Your task to perform on an android device: turn notification dots off Image 0: 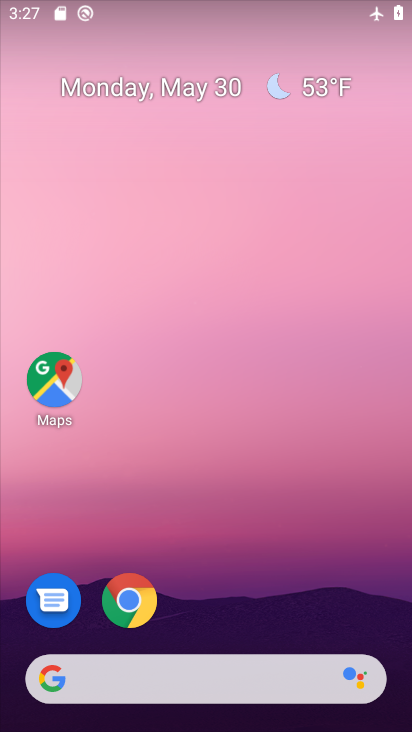
Step 0: click (412, 511)
Your task to perform on an android device: turn notification dots off Image 1: 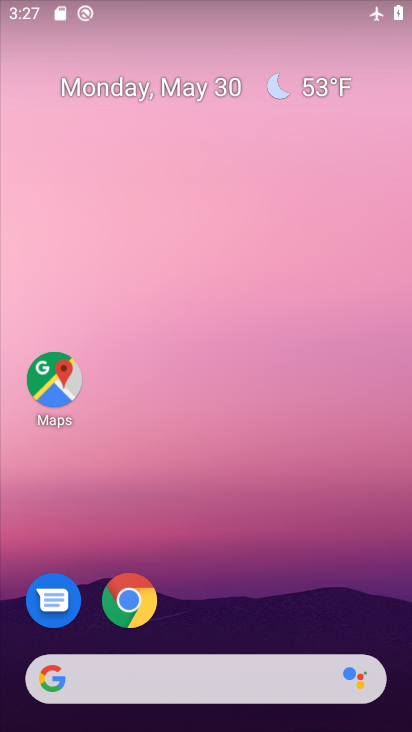
Step 1: drag from (345, 513) to (408, 146)
Your task to perform on an android device: turn notification dots off Image 2: 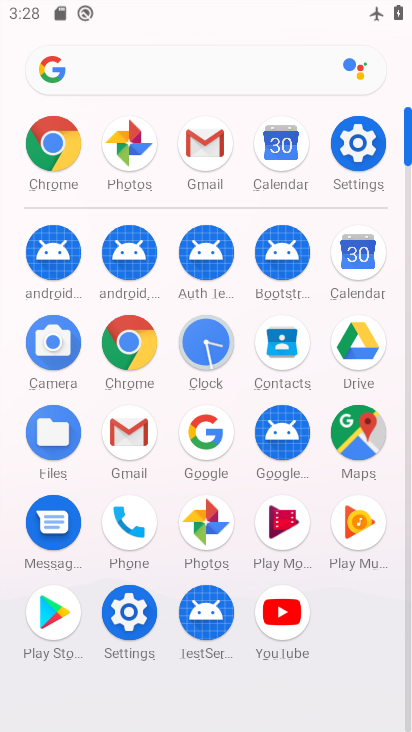
Step 2: click (360, 143)
Your task to perform on an android device: turn notification dots off Image 3: 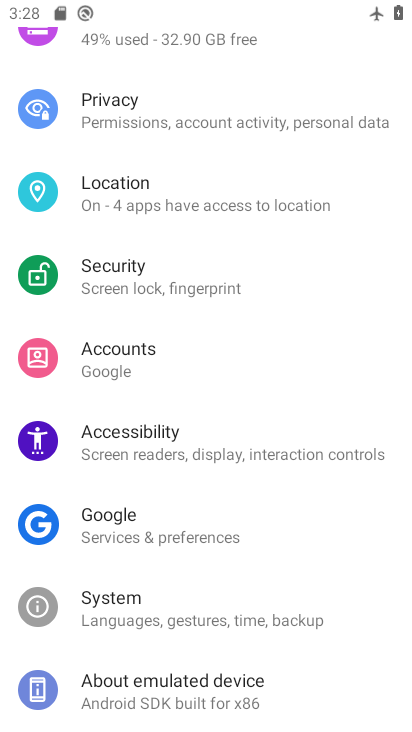
Step 3: drag from (269, 541) to (396, 192)
Your task to perform on an android device: turn notification dots off Image 4: 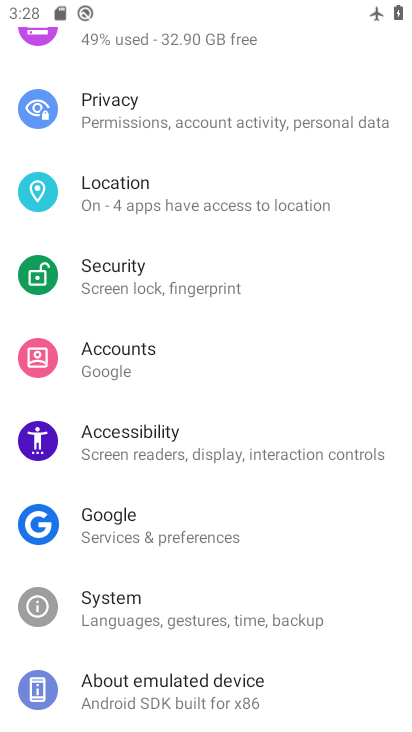
Step 4: drag from (298, 242) to (196, 580)
Your task to perform on an android device: turn notification dots off Image 5: 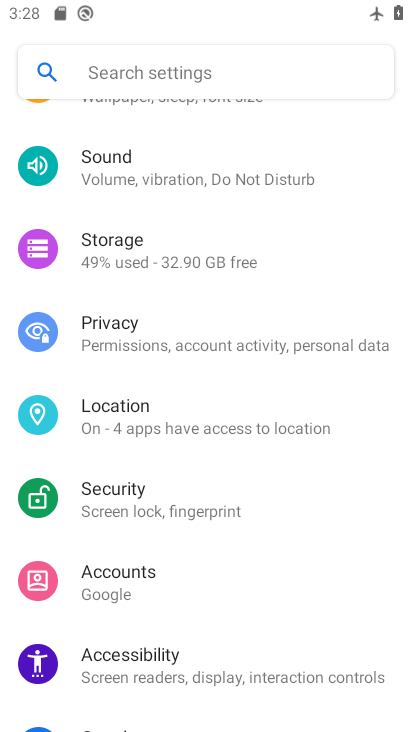
Step 5: drag from (219, 355) to (154, 618)
Your task to perform on an android device: turn notification dots off Image 6: 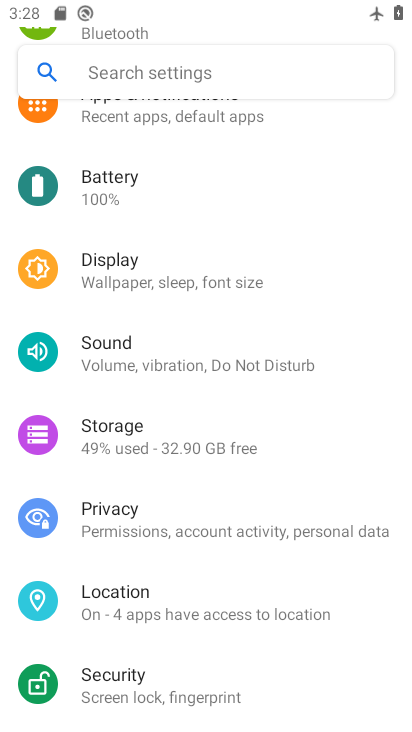
Step 6: drag from (229, 249) to (102, 610)
Your task to perform on an android device: turn notification dots off Image 7: 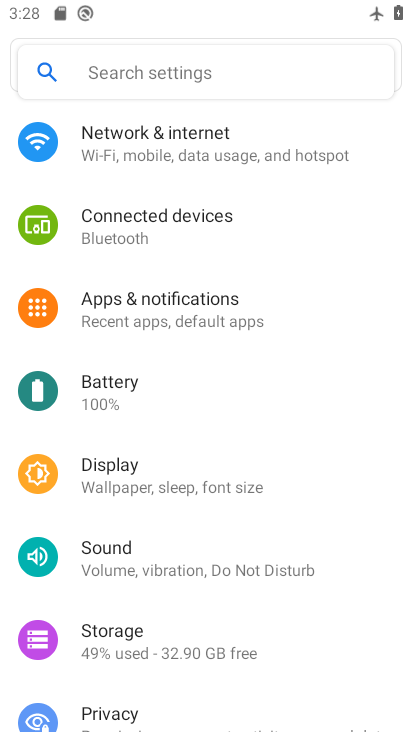
Step 7: drag from (168, 243) to (85, 578)
Your task to perform on an android device: turn notification dots off Image 8: 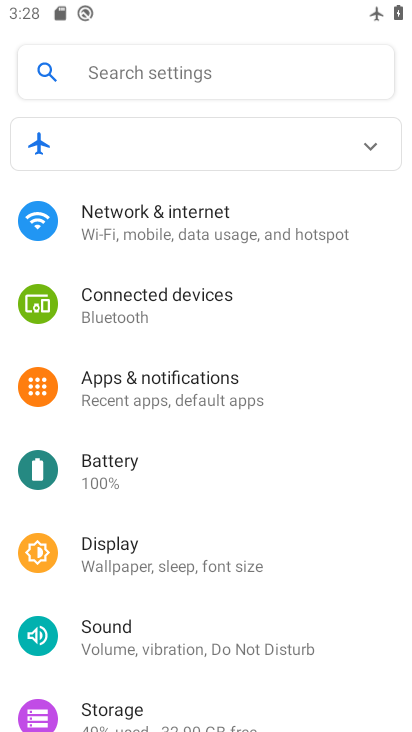
Step 8: click (186, 382)
Your task to perform on an android device: turn notification dots off Image 9: 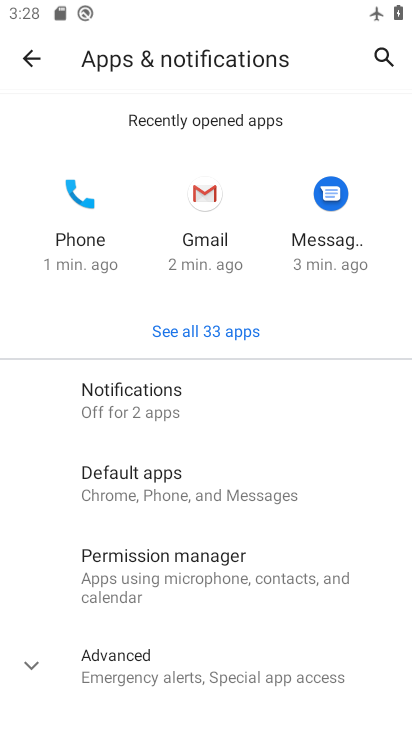
Step 9: click (153, 393)
Your task to perform on an android device: turn notification dots off Image 10: 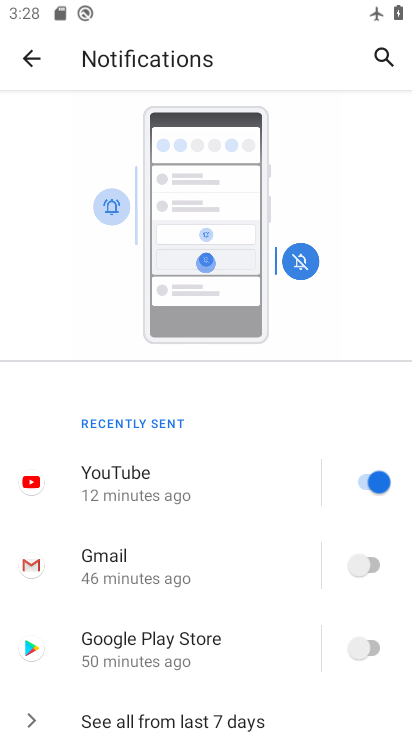
Step 10: drag from (164, 558) to (261, 258)
Your task to perform on an android device: turn notification dots off Image 11: 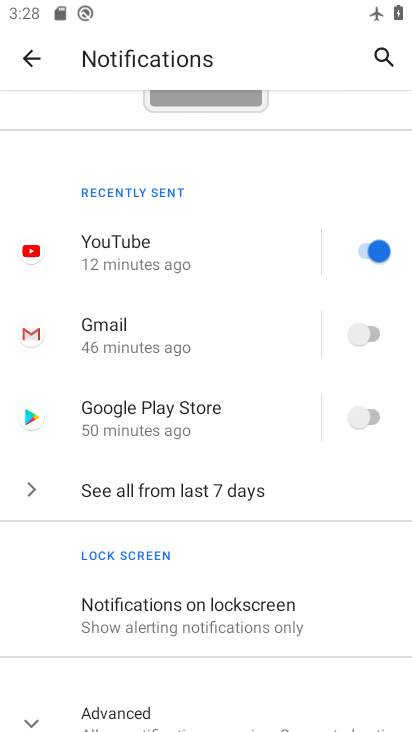
Step 11: drag from (164, 593) to (259, 259)
Your task to perform on an android device: turn notification dots off Image 12: 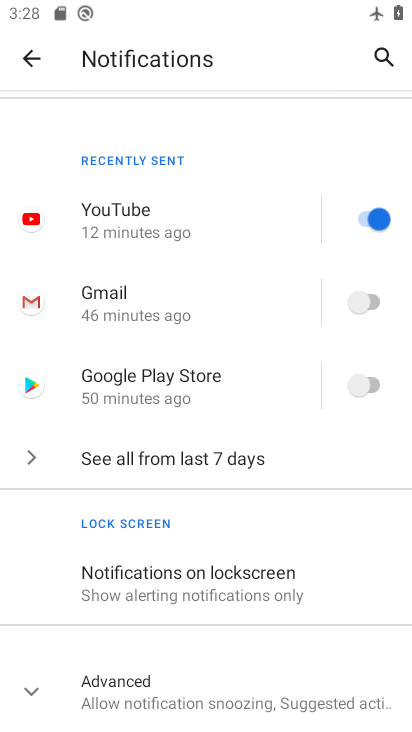
Step 12: click (126, 686)
Your task to perform on an android device: turn notification dots off Image 13: 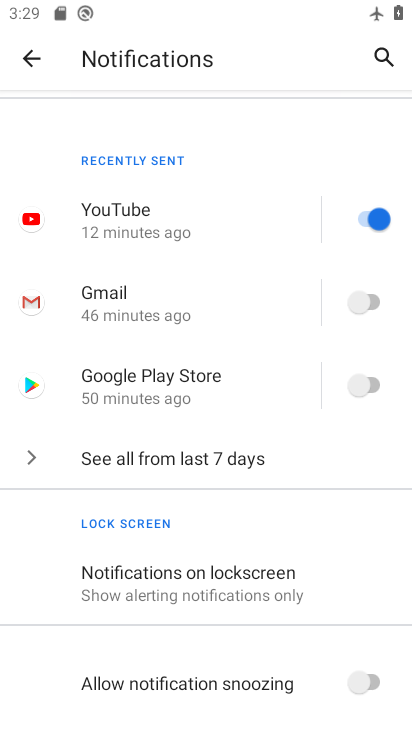
Step 13: drag from (165, 627) to (286, 317)
Your task to perform on an android device: turn notification dots off Image 14: 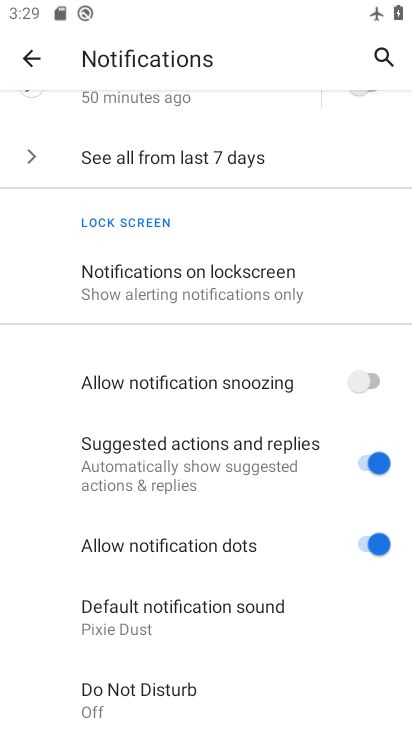
Step 14: drag from (140, 598) to (277, 288)
Your task to perform on an android device: turn notification dots off Image 15: 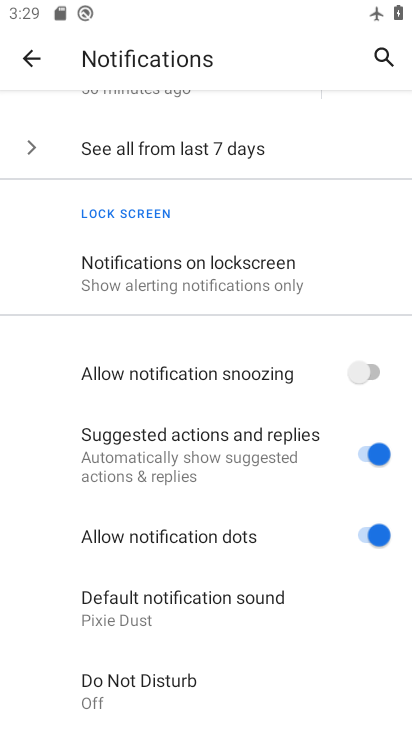
Step 15: click (376, 534)
Your task to perform on an android device: turn notification dots off Image 16: 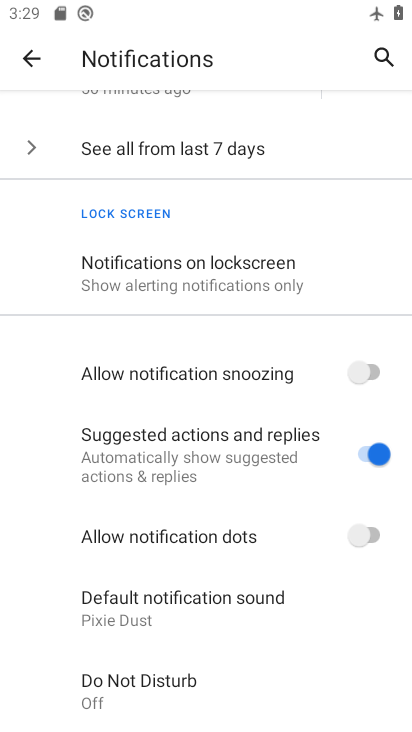
Step 16: task complete